Your task to perform on an android device: Show me recent news Image 0: 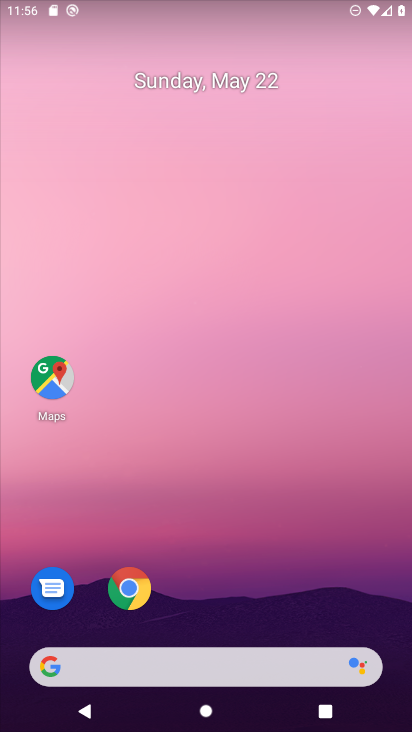
Step 0: drag from (219, 640) to (216, 366)
Your task to perform on an android device: Show me recent news Image 1: 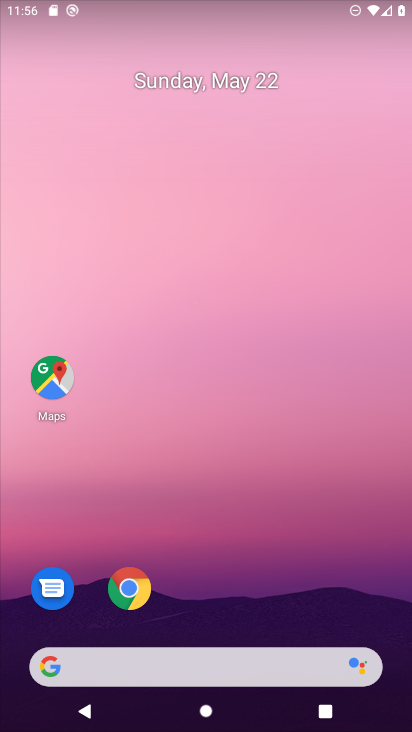
Step 1: drag from (204, 645) to (315, 13)
Your task to perform on an android device: Show me recent news Image 2: 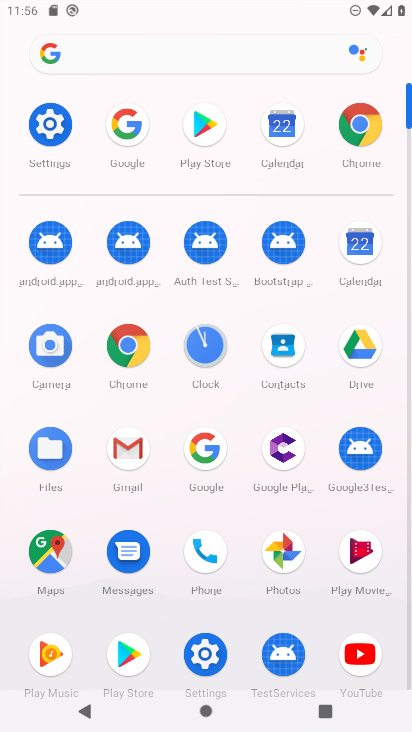
Step 2: click (207, 453)
Your task to perform on an android device: Show me recent news Image 3: 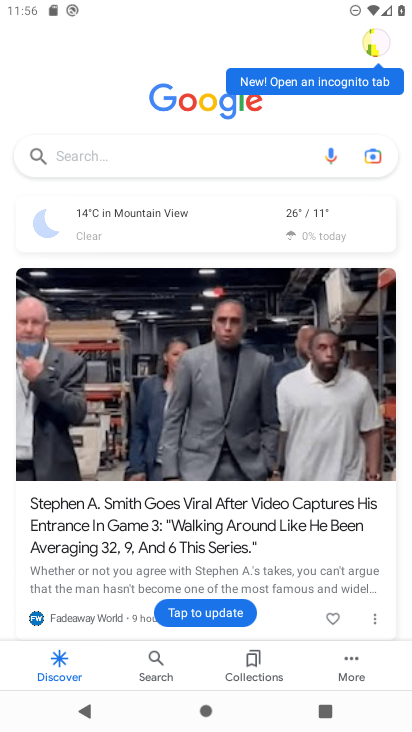
Step 3: click (198, 155)
Your task to perform on an android device: Show me recent news Image 4: 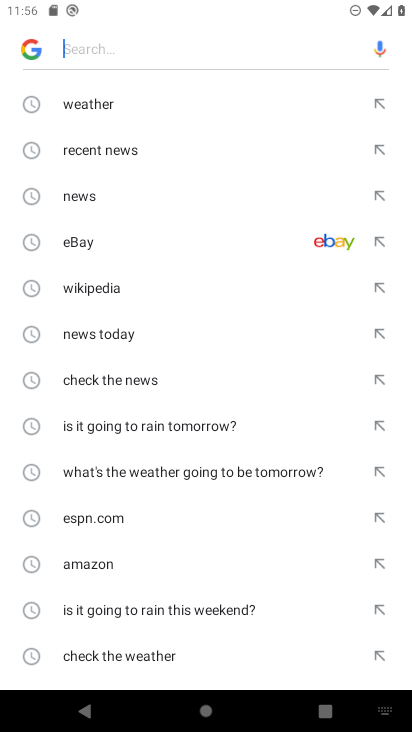
Step 4: click (122, 147)
Your task to perform on an android device: Show me recent news Image 5: 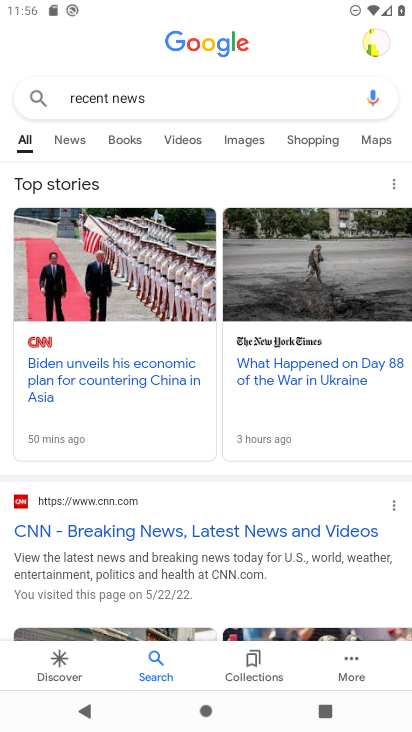
Step 5: task complete